Your task to perform on an android device: Go to network settings Image 0: 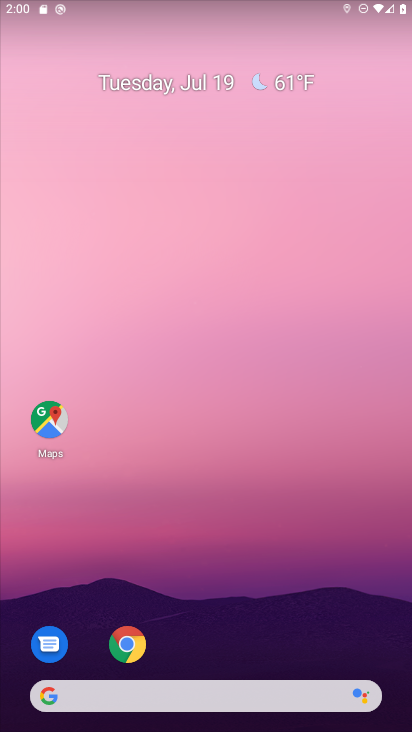
Step 0: drag from (219, 656) to (212, 182)
Your task to perform on an android device: Go to network settings Image 1: 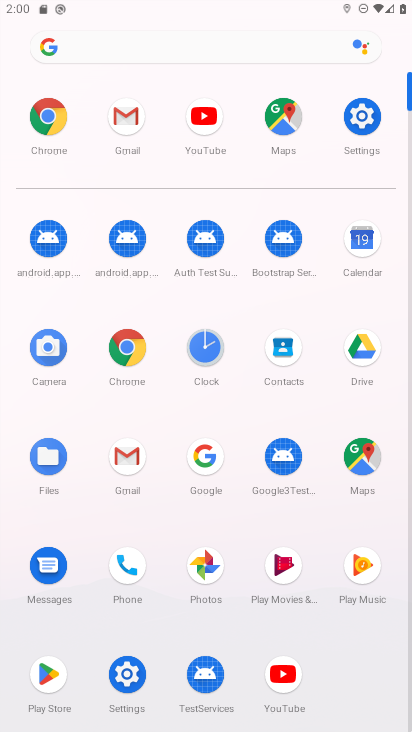
Step 1: click (127, 674)
Your task to perform on an android device: Go to network settings Image 2: 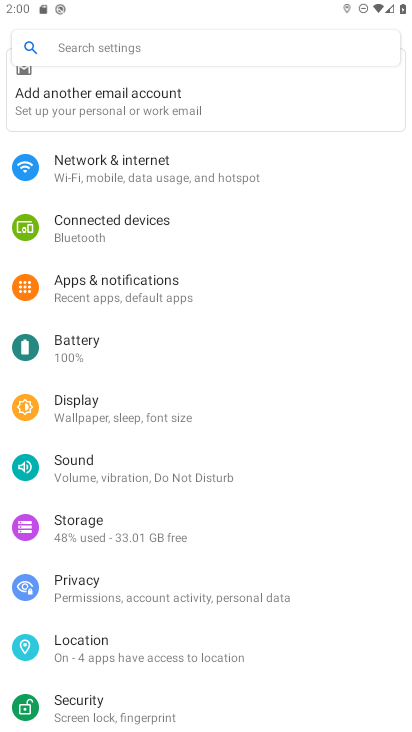
Step 2: click (76, 163)
Your task to perform on an android device: Go to network settings Image 3: 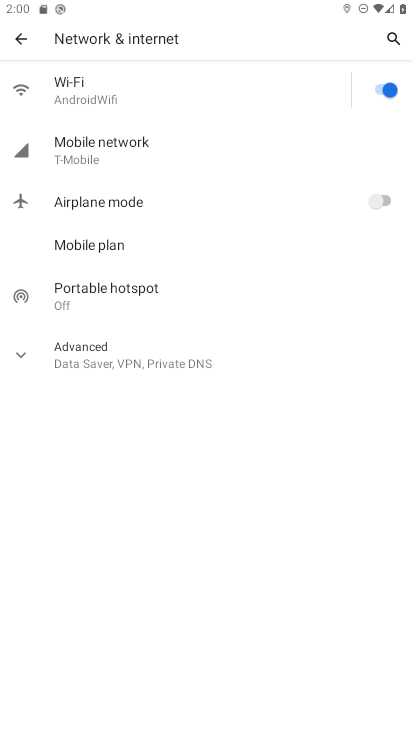
Step 3: click (116, 139)
Your task to perform on an android device: Go to network settings Image 4: 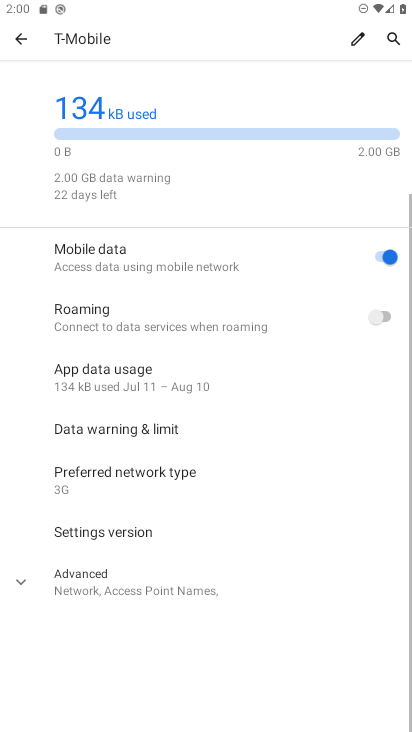
Step 4: task complete